Your task to perform on an android device: Open eBay Image 0: 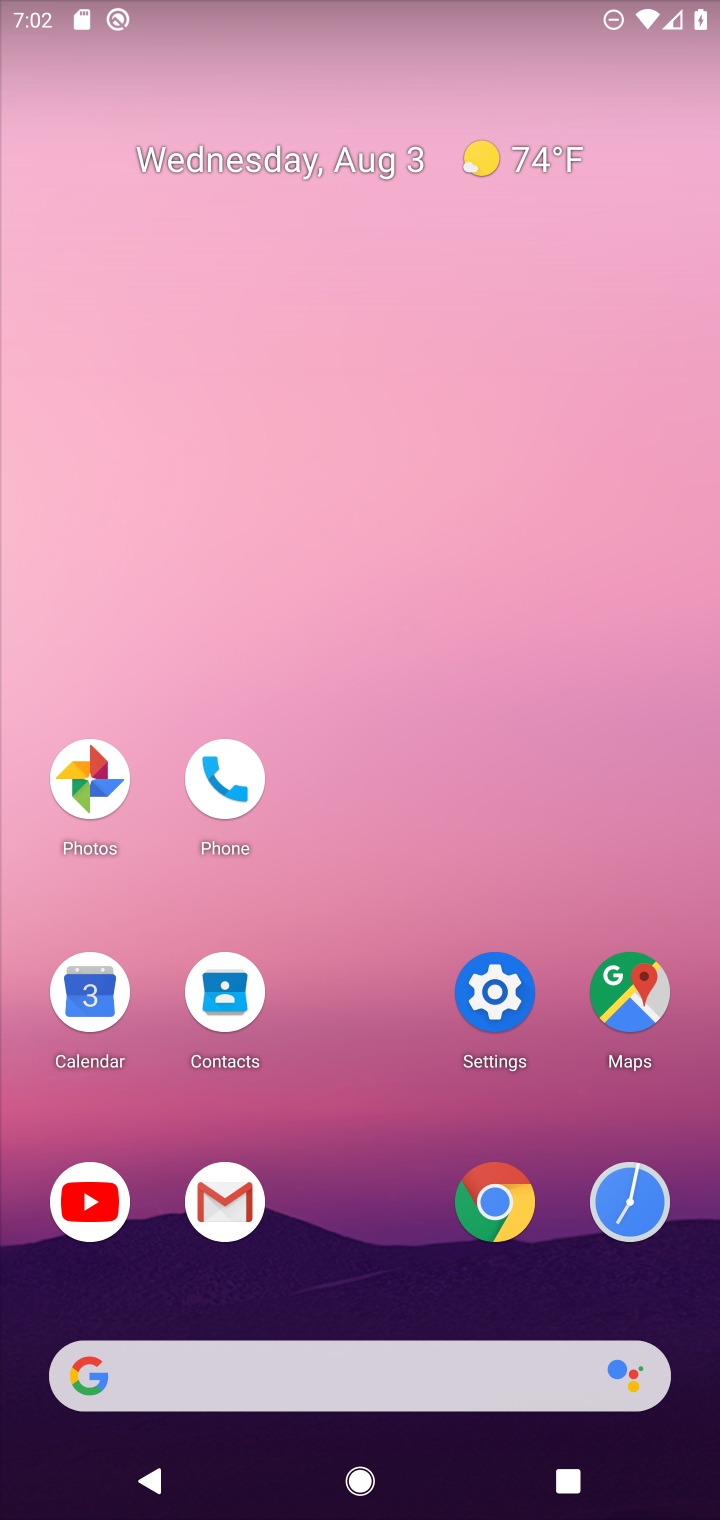
Step 0: click (504, 1202)
Your task to perform on an android device: Open eBay Image 1: 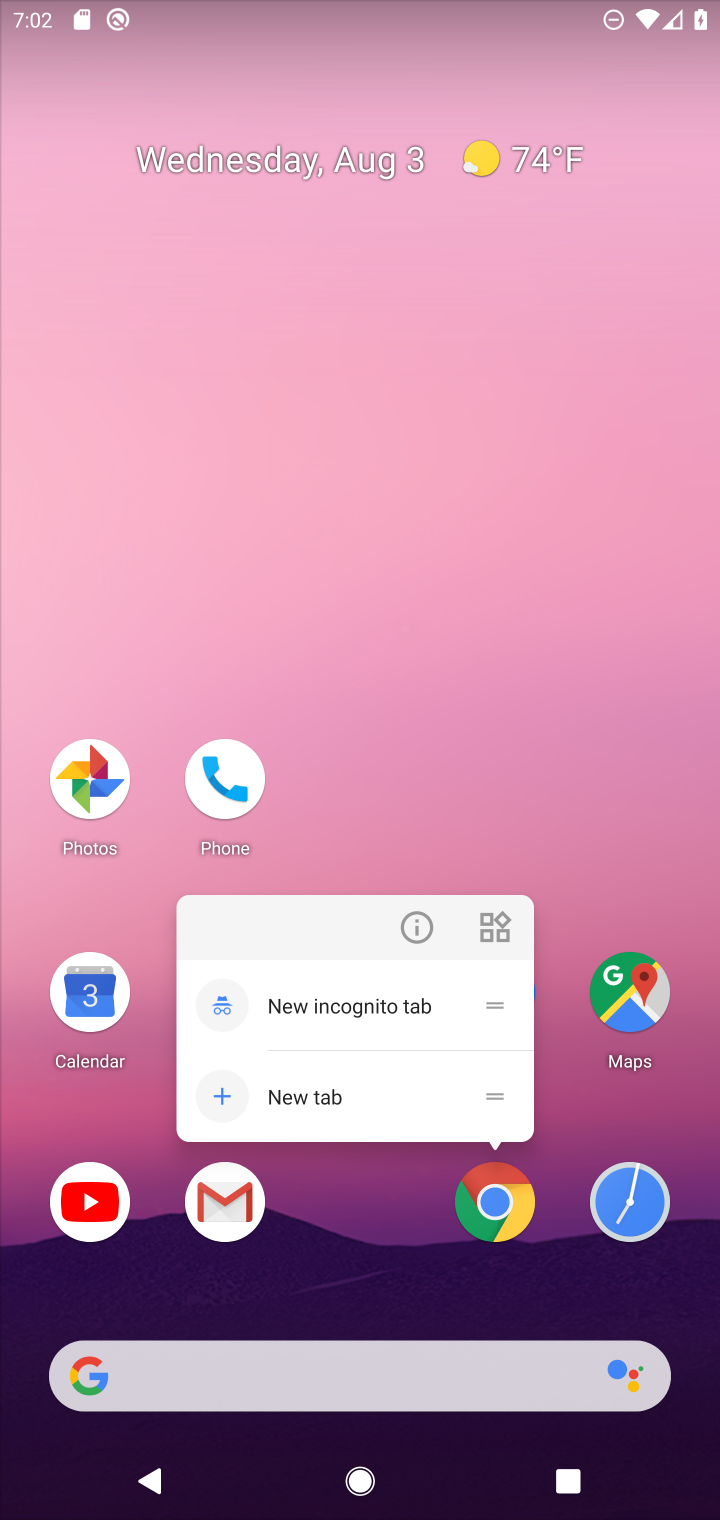
Step 1: click (488, 1189)
Your task to perform on an android device: Open eBay Image 2: 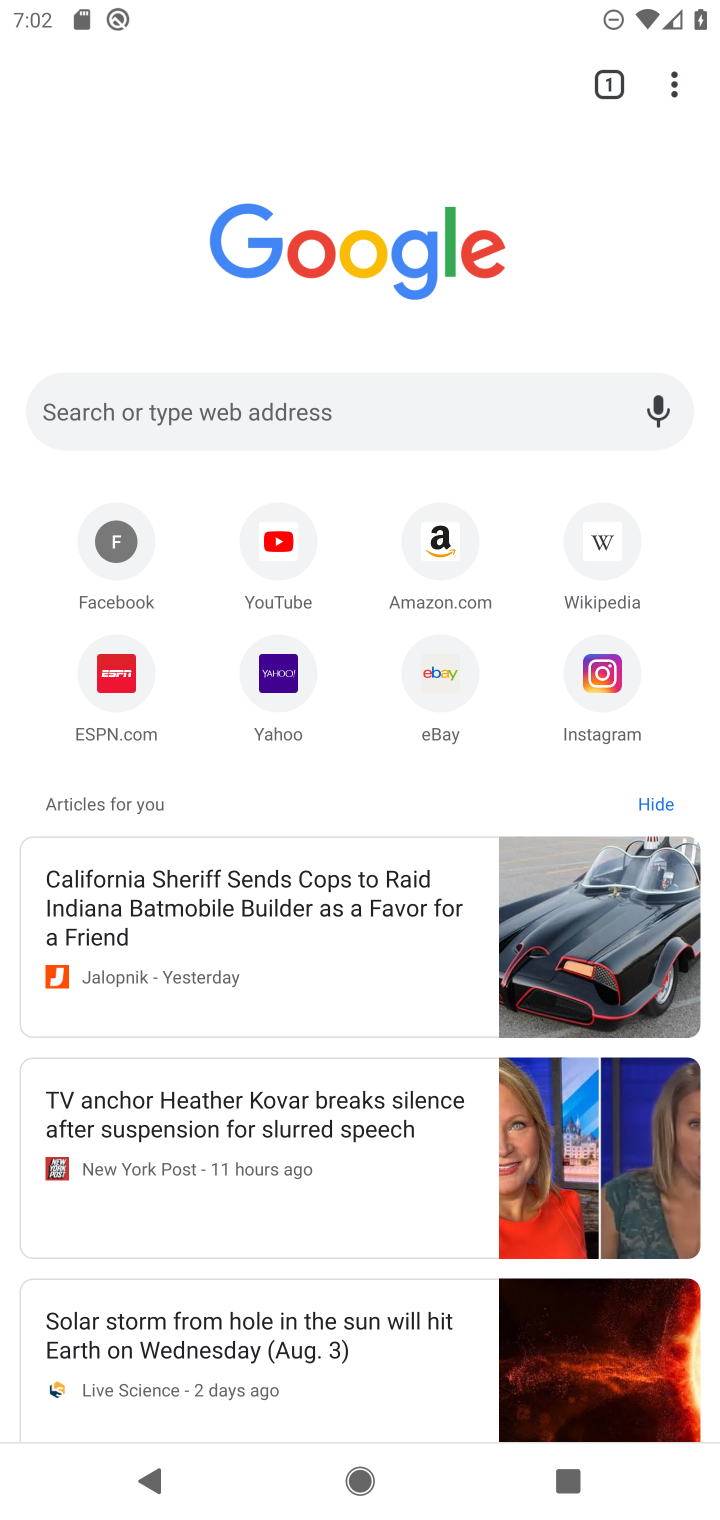
Step 2: click (422, 665)
Your task to perform on an android device: Open eBay Image 3: 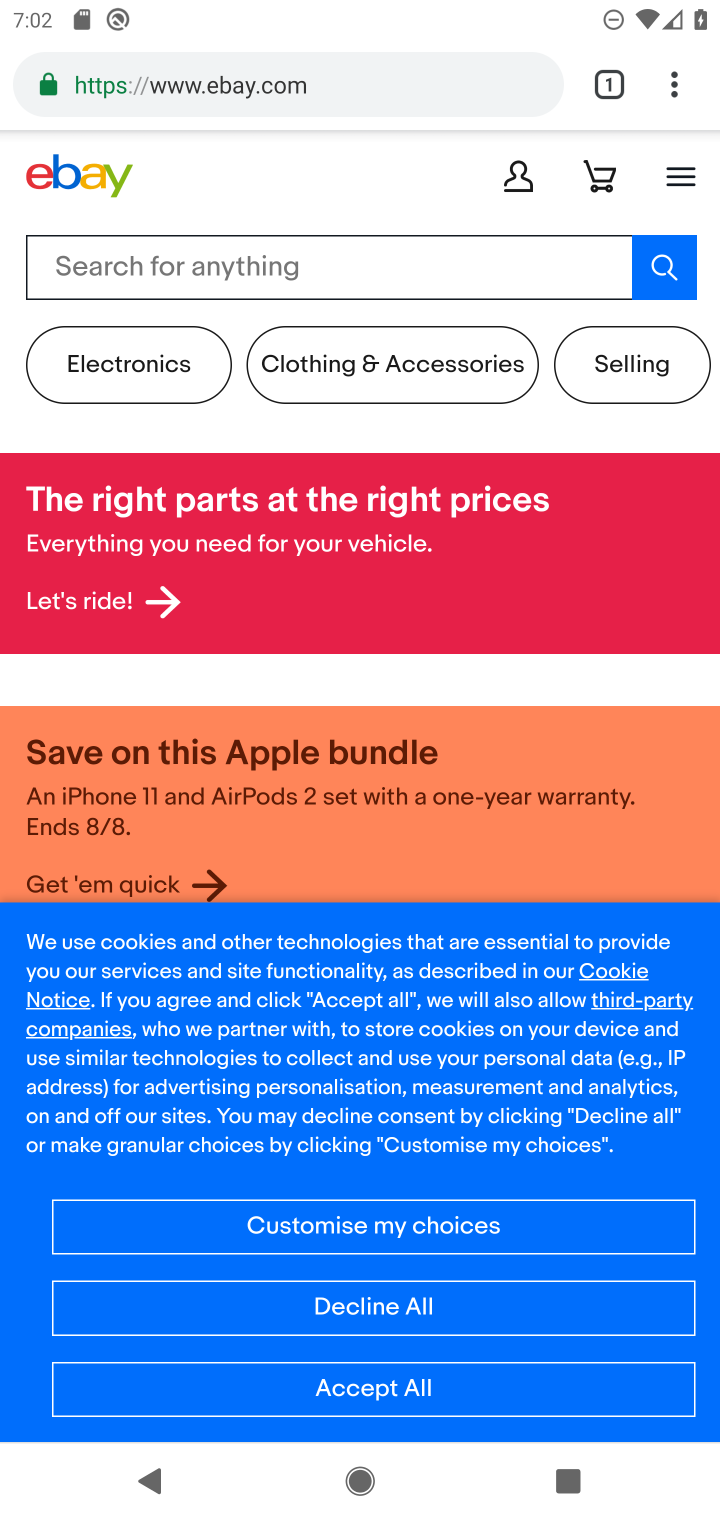
Step 3: task complete